Your task to perform on an android device: check the backup settings in the google photos Image 0: 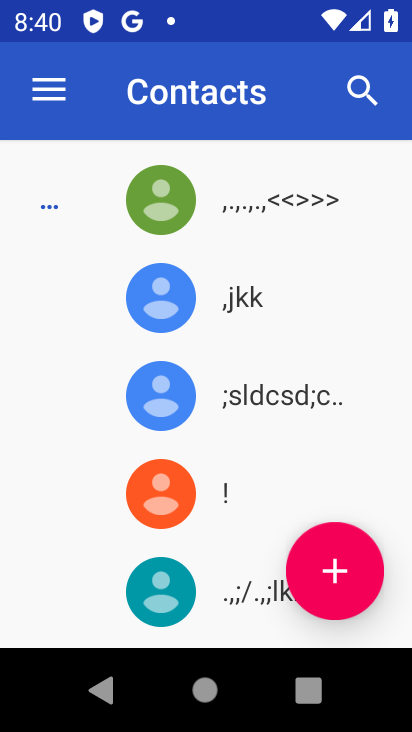
Step 0: press home button
Your task to perform on an android device: check the backup settings in the google photos Image 1: 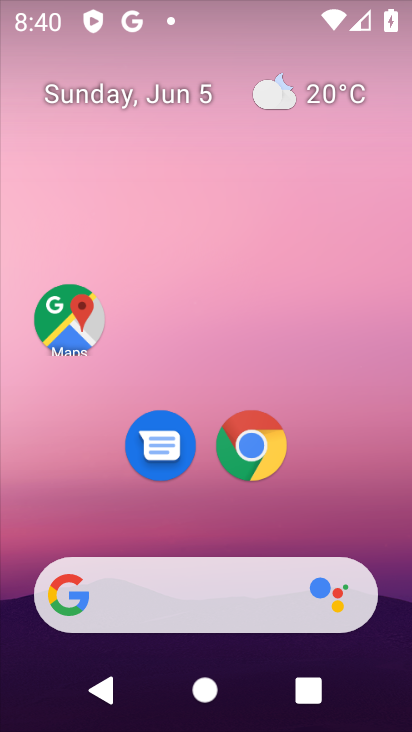
Step 1: drag from (283, 588) to (257, 249)
Your task to perform on an android device: check the backup settings in the google photos Image 2: 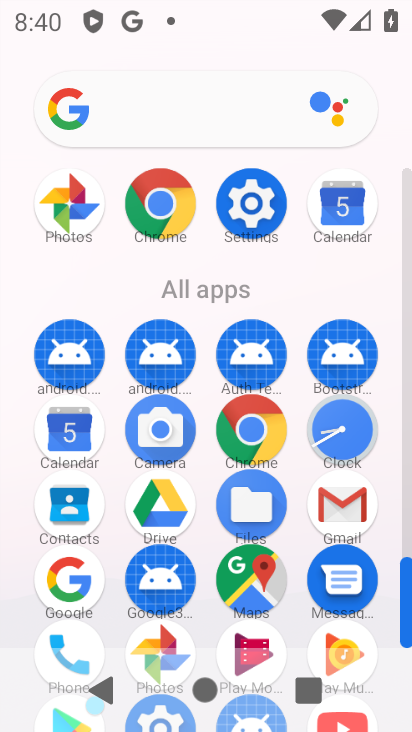
Step 2: click (153, 624)
Your task to perform on an android device: check the backup settings in the google photos Image 3: 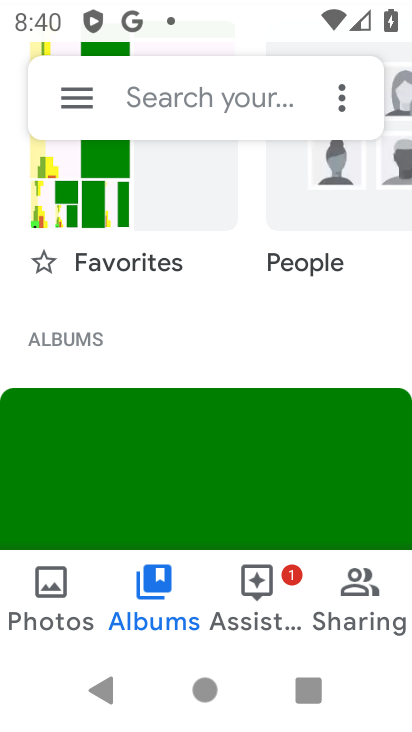
Step 3: click (78, 98)
Your task to perform on an android device: check the backup settings in the google photos Image 4: 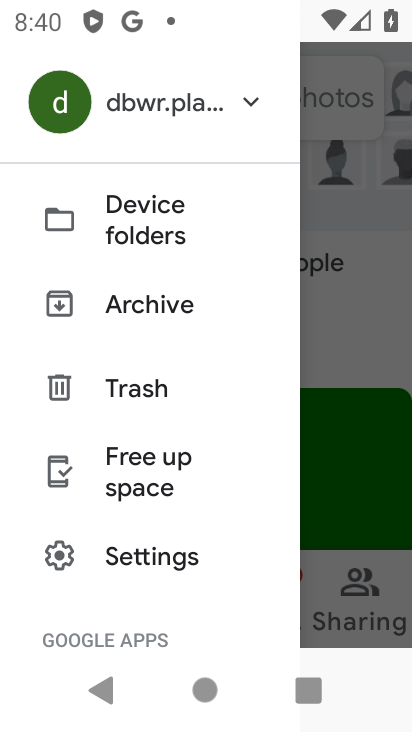
Step 4: drag from (177, 556) to (204, 317)
Your task to perform on an android device: check the backup settings in the google photos Image 5: 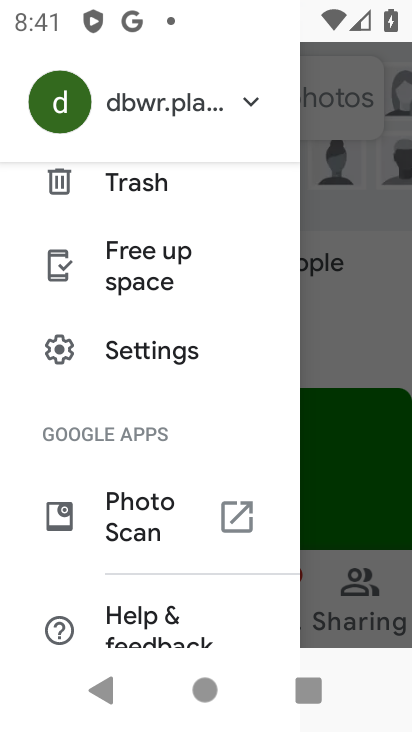
Step 5: click (165, 350)
Your task to perform on an android device: check the backup settings in the google photos Image 6: 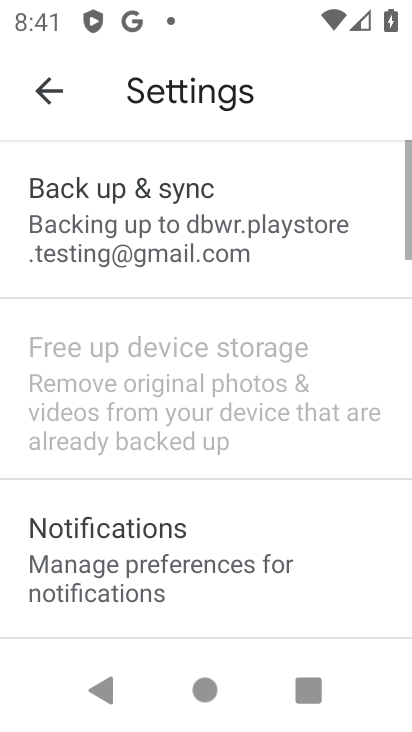
Step 6: click (211, 235)
Your task to perform on an android device: check the backup settings in the google photos Image 7: 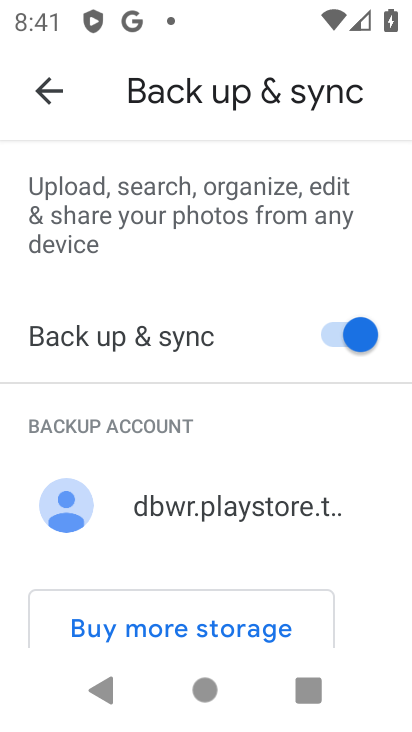
Step 7: task complete